Your task to perform on an android device: Open calendar and show me the second week of next month Image 0: 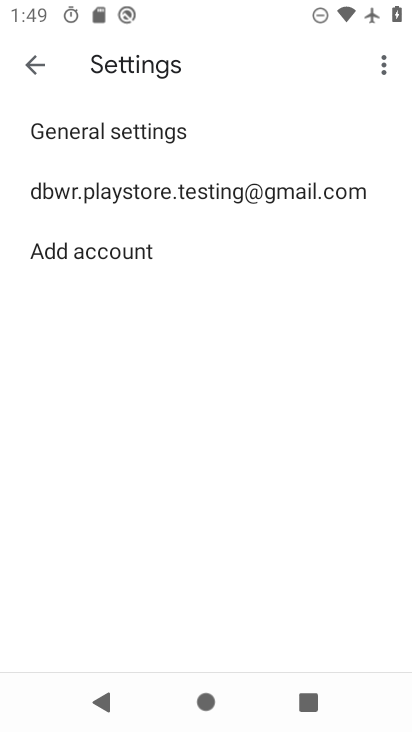
Step 0: press home button
Your task to perform on an android device: Open calendar and show me the second week of next month Image 1: 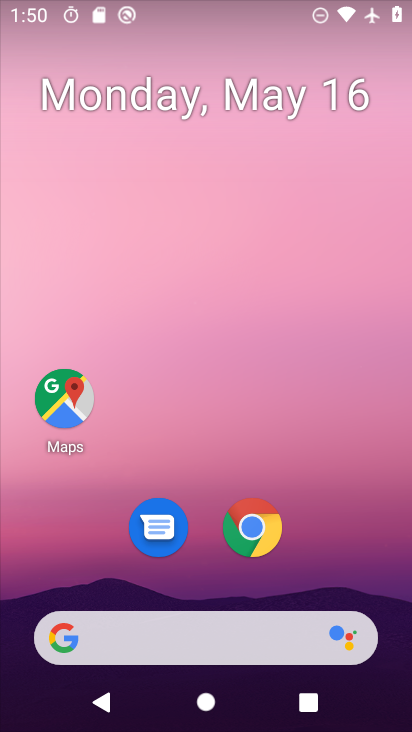
Step 1: drag from (167, 633) to (337, 145)
Your task to perform on an android device: Open calendar and show me the second week of next month Image 2: 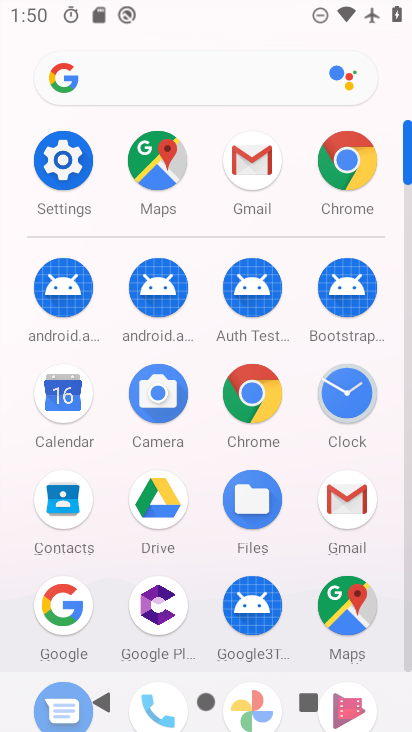
Step 2: click (63, 408)
Your task to perform on an android device: Open calendar and show me the second week of next month Image 3: 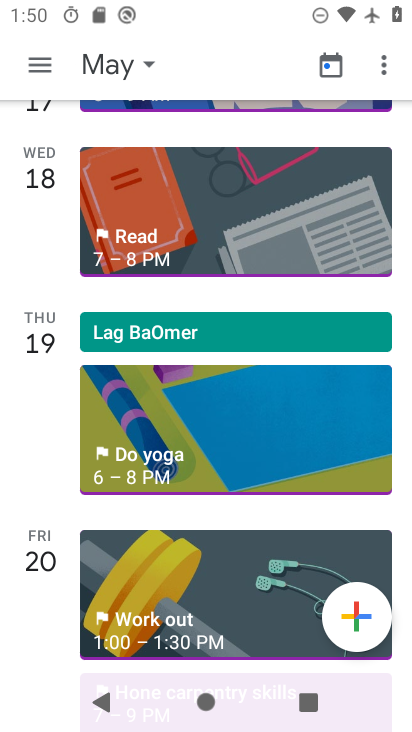
Step 3: click (120, 68)
Your task to perform on an android device: Open calendar and show me the second week of next month Image 4: 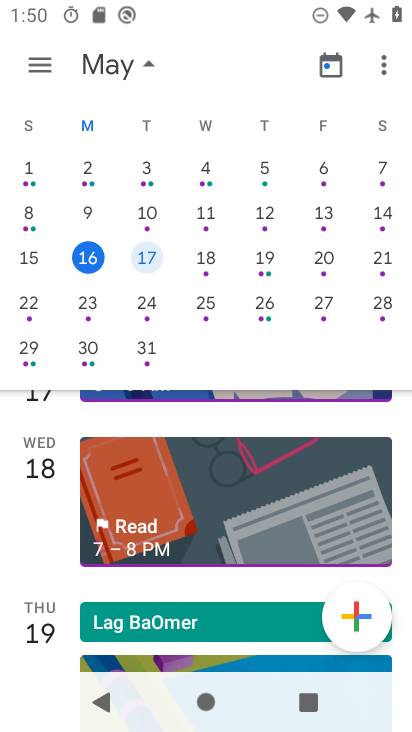
Step 4: drag from (375, 231) to (70, 252)
Your task to perform on an android device: Open calendar and show me the second week of next month Image 5: 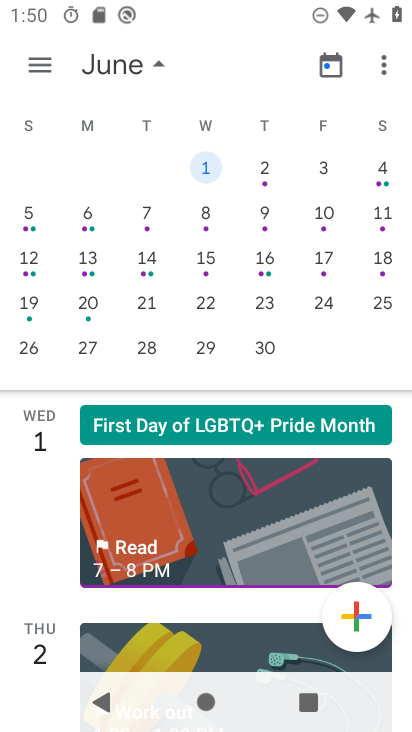
Step 5: click (25, 222)
Your task to perform on an android device: Open calendar and show me the second week of next month Image 6: 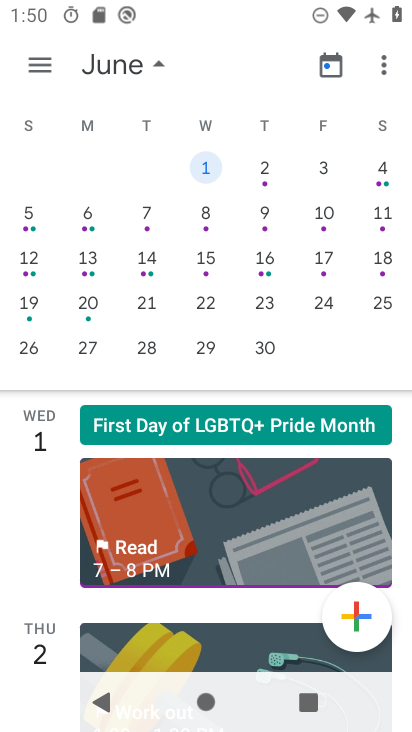
Step 6: click (31, 217)
Your task to perform on an android device: Open calendar and show me the second week of next month Image 7: 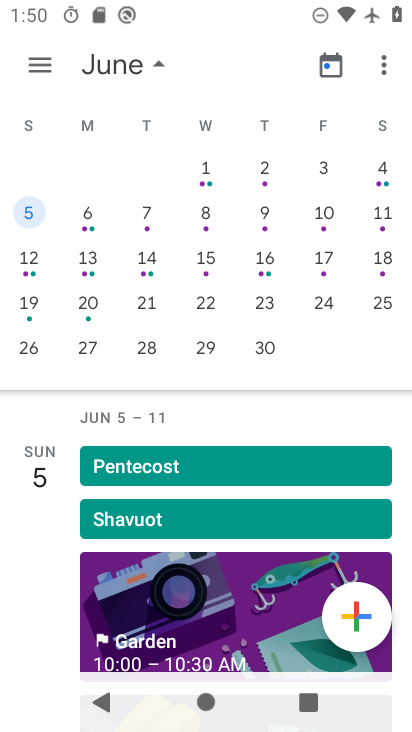
Step 7: click (46, 64)
Your task to perform on an android device: Open calendar and show me the second week of next month Image 8: 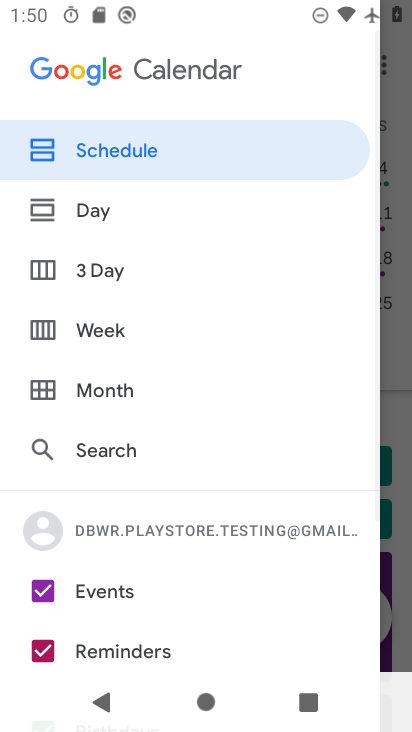
Step 8: click (121, 331)
Your task to perform on an android device: Open calendar and show me the second week of next month Image 9: 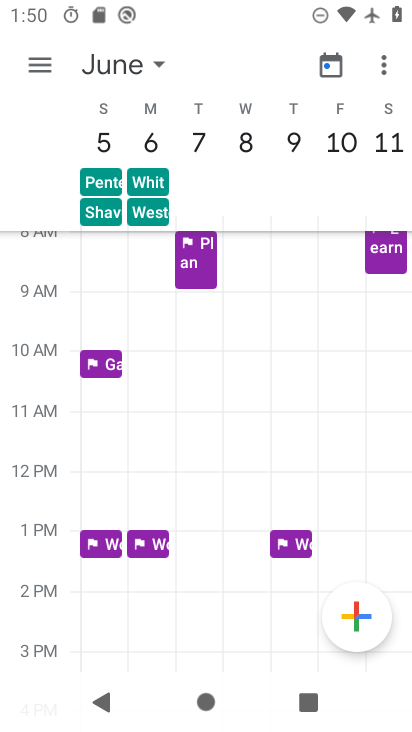
Step 9: task complete